Your task to perform on an android device: add a label to a message in the gmail app Image 0: 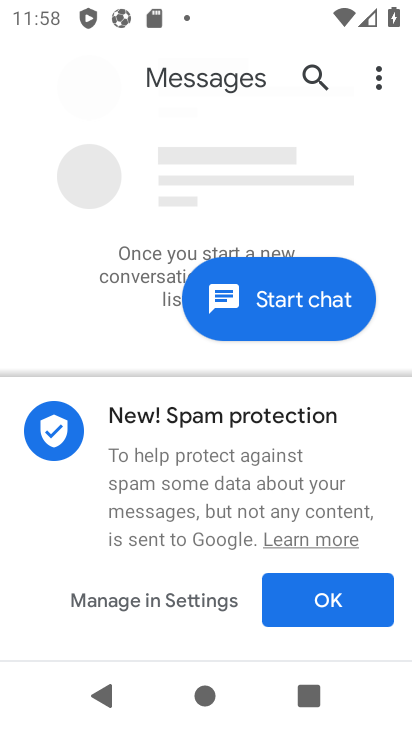
Step 0: press home button
Your task to perform on an android device: add a label to a message in the gmail app Image 1: 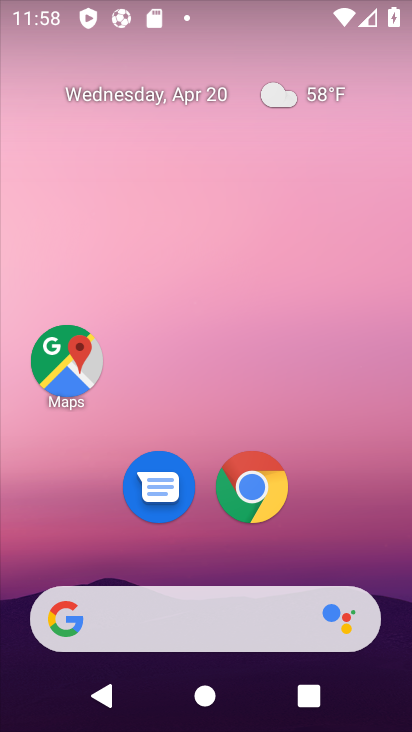
Step 1: drag from (360, 460) to (363, 38)
Your task to perform on an android device: add a label to a message in the gmail app Image 2: 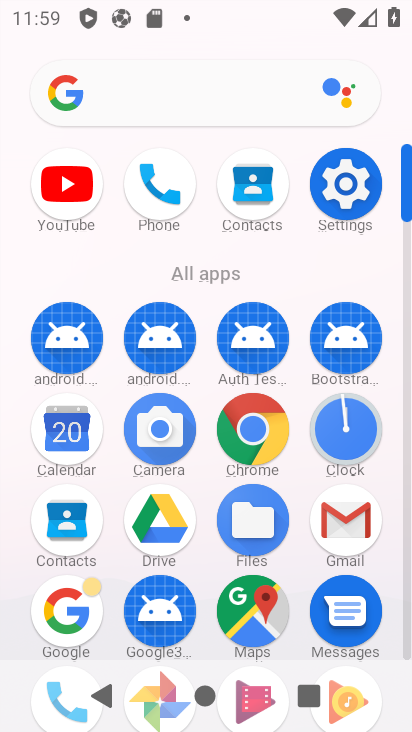
Step 2: click (342, 539)
Your task to perform on an android device: add a label to a message in the gmail app Image 3: 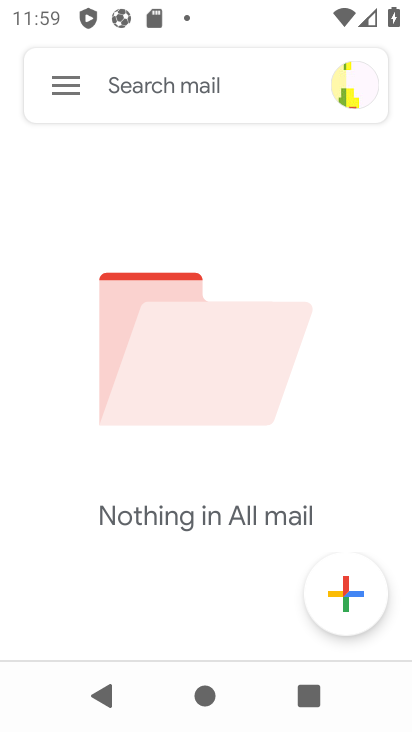
Step 3: click (61, 85)
Your task to perform on an android device: add a label to a message in the gmail app Image 4: 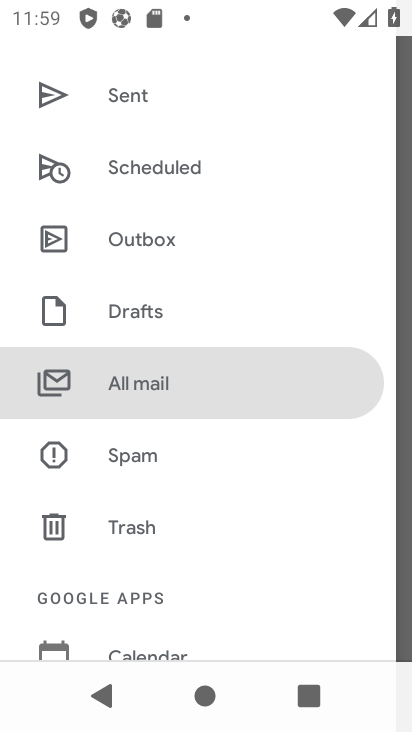
Step 4: click (221, 384)
Your task to perform on an android device: add a label to a message in the gmail app Image 5: 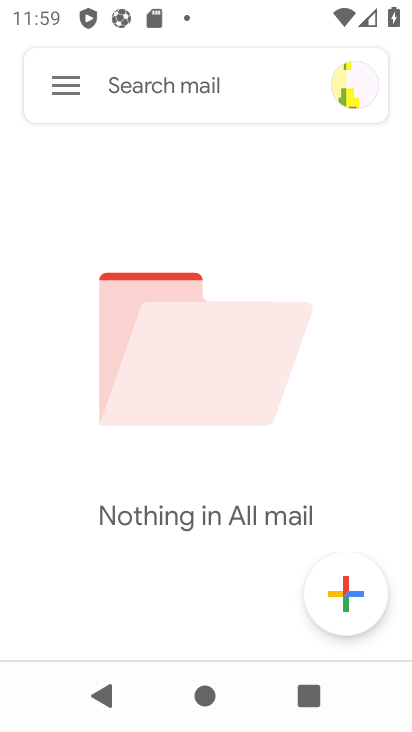
Step 5: task complete